Your task to perform on an android device: find photos in the google photos app Image 0: 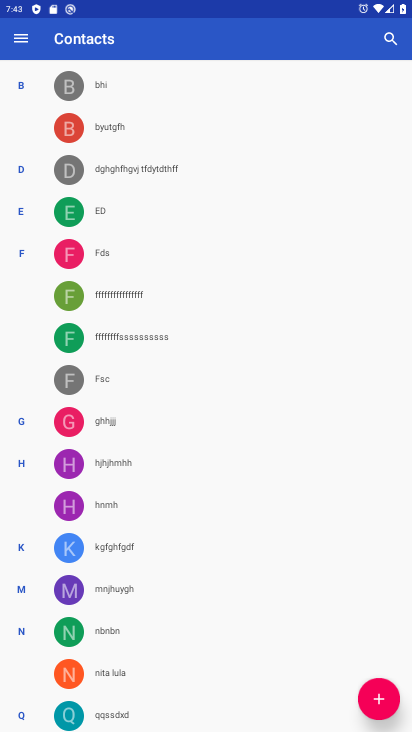
Step 0: press home button
Your task to perform on an android device: find photos in the google photos app Image 1: 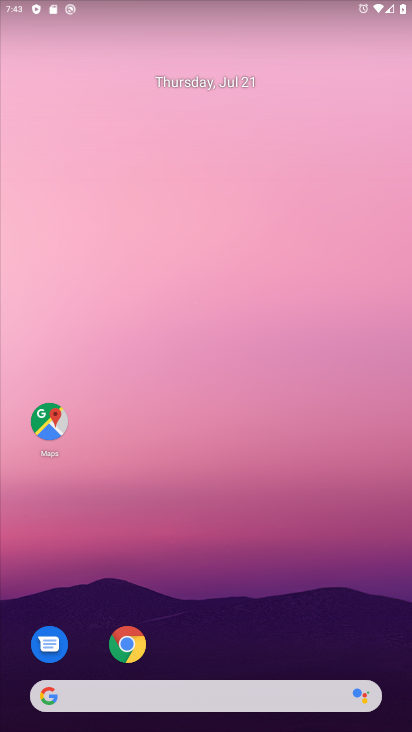
Step 1: drag from (302, 647) to (343, 226)
Your task to perform on an android device: find photos in the google photos app Image 2: 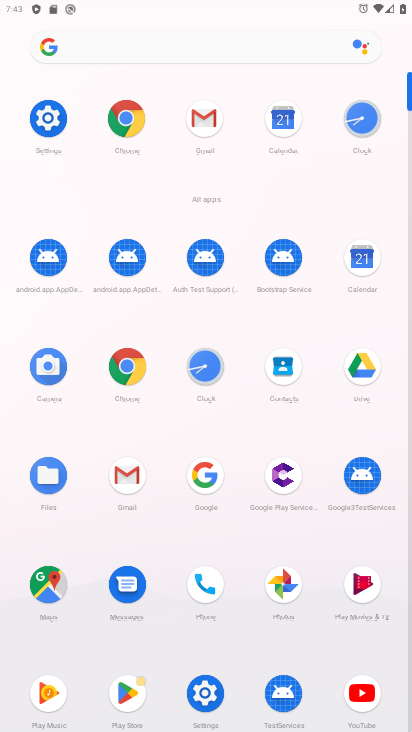
Step 2: click (278, 580)
Your task to perform on an android device: find photos in the google photos app Image 3: 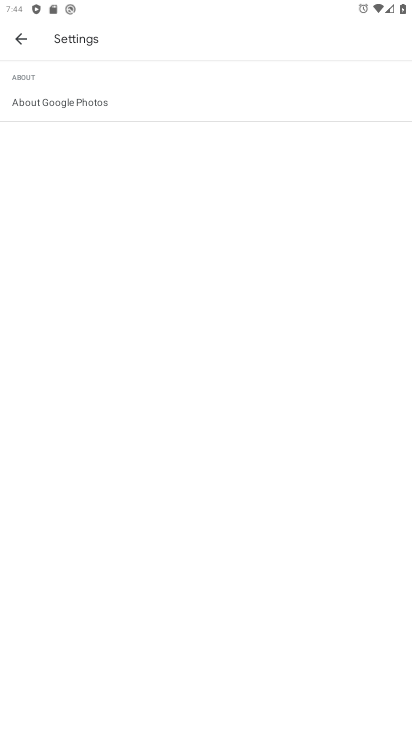
Step 3: task complete